Your task to perform on an android device: set an alarm Image 0: 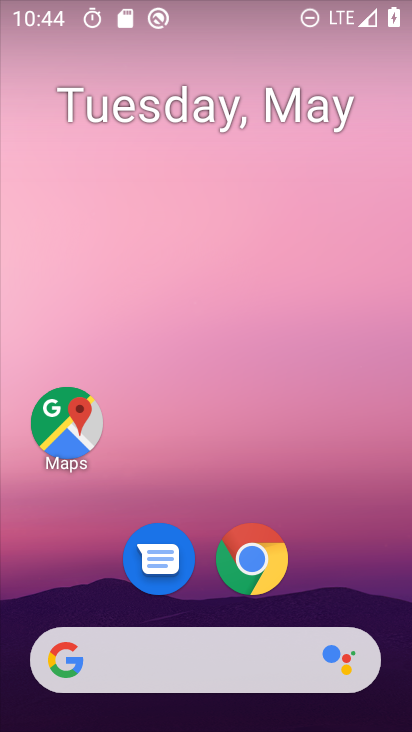
Step 0: drag from (401, 626) to (278, 7)
Your task to perform on an android device: set an alarm Image 1: 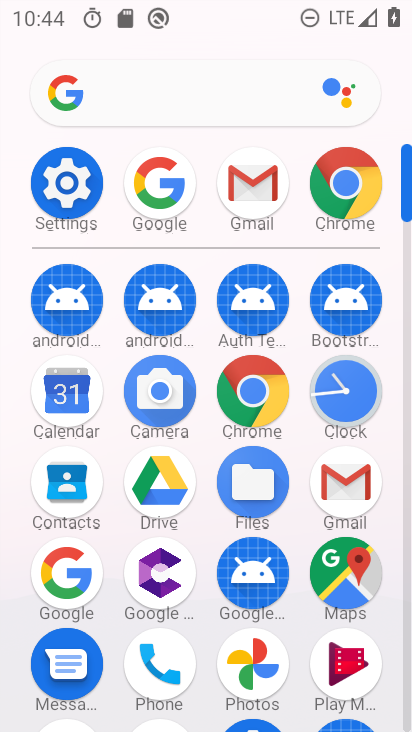
Step 1: click (356, 413)
Your task to perform on an android device: set an alarm Image 2: 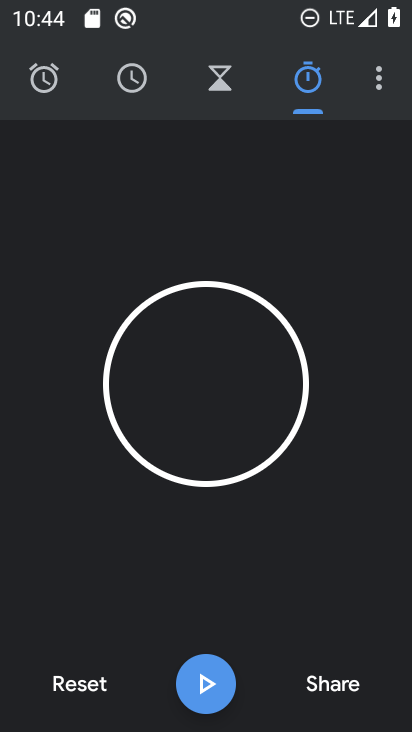
Step 2: click (45, 77)
Your task to perform on an android device: set an alarm Image 3: 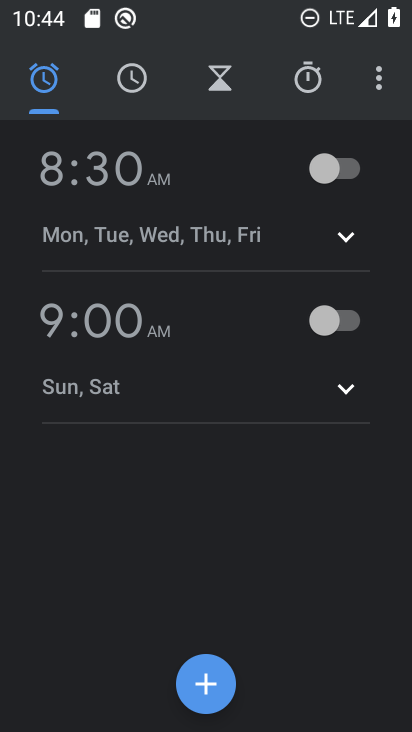
Step 3: click (326, 167)
Your task to perform on an android device: set an alarm Image 4: 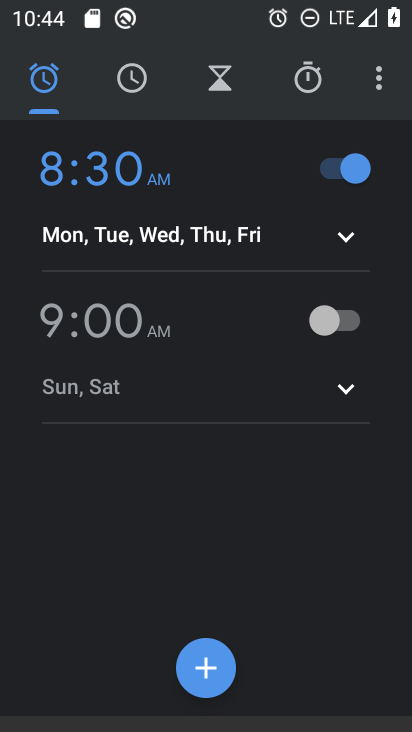
Step 4: task complete